Your task to perform on an android device: Open calendar and show me the fourth week of next month Image 0: 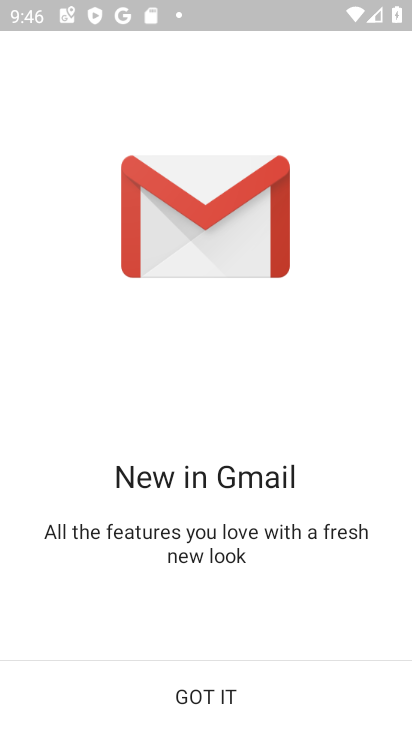
Step 0: press home button
Your task to perform on an android device: Open calendar and show me the fourth week of next month Image 1: 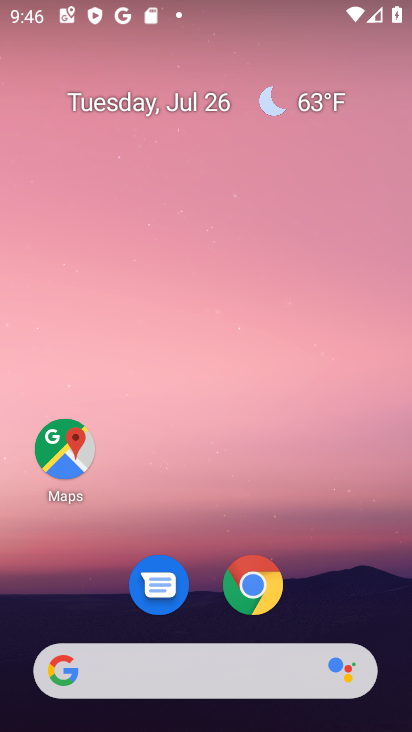
Step 1: drag from (337, 600) to (289, 91)
Your task to perform on an android device: Open calendar and show me the fourth week of next month Image 2: 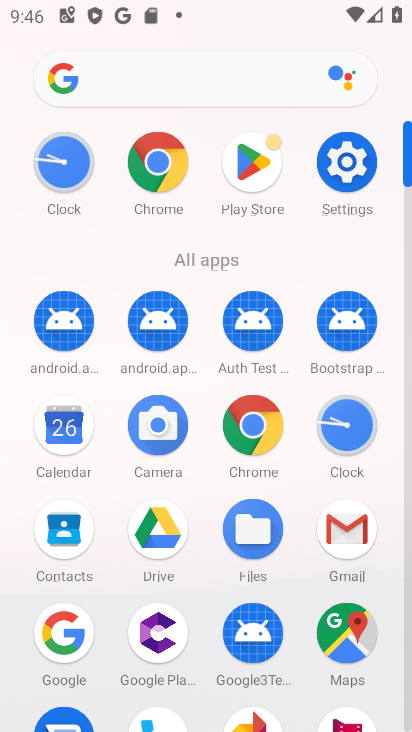
Step 2: click (61, 527)
Your task to perform on an android device: Open calendar and show me the fourth week of next month Image 3: 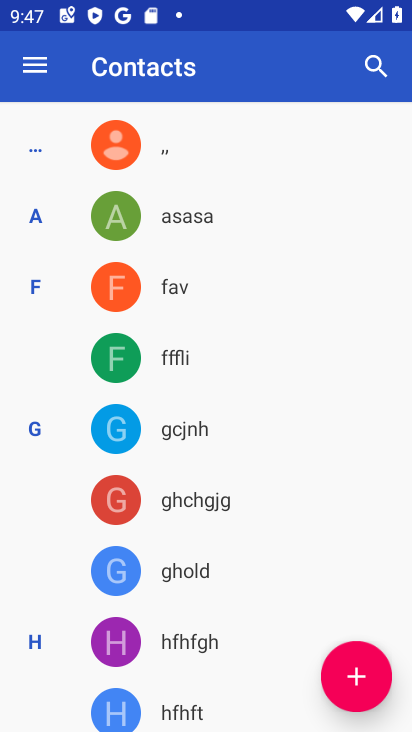
Step 3: press back button
Your task to perform on an android device: Open calendar and show me the fourth week of next month Image 4: 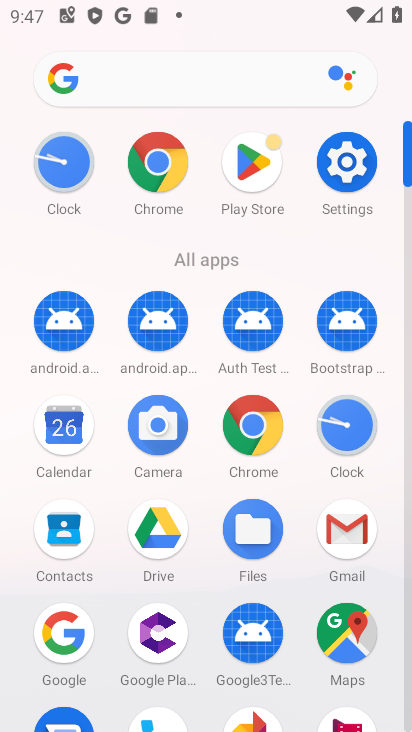
Step 4: click (63, 437)
Your task to perform on an android device: Open calendar and show me the fourth week of next month Image 5: 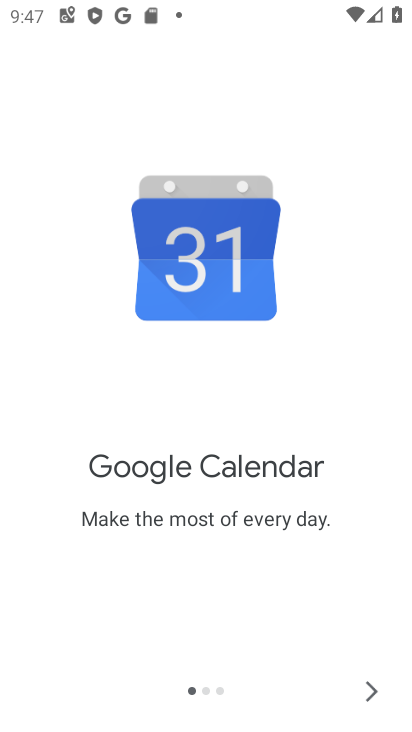
Step 5: click (374, 683)
Your task to perform on an android device: Open calendar and show me the fourth week of next month Image 6: 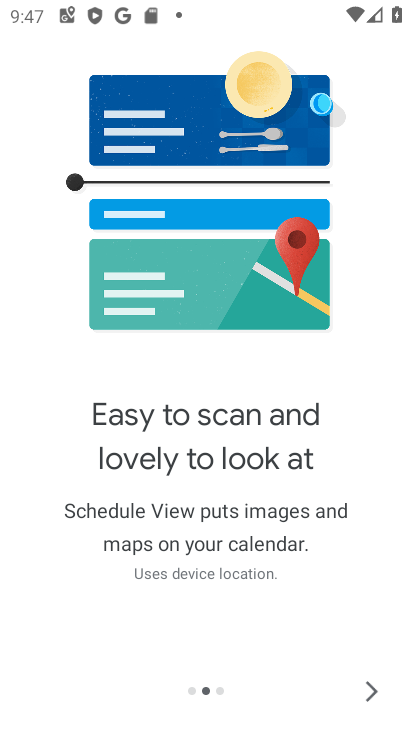
Step 6: click (374, 683)
Your task to perform on an android device: Open calendar and show me the fourth week of next month Image 7: 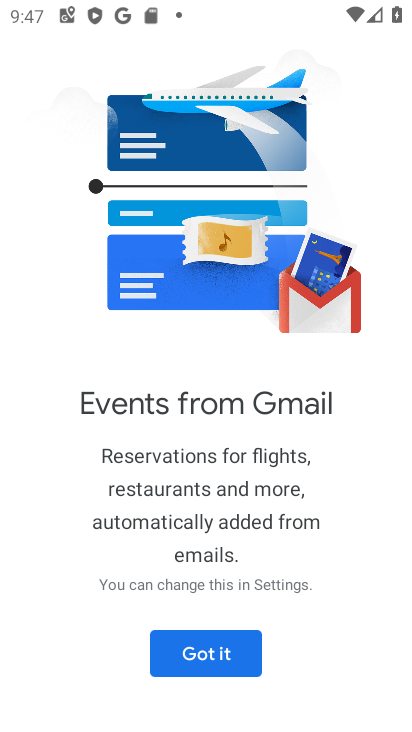
Step 7: click (244, 654)
Your task to perform on an android device: Open calendar and show me the fourth week of next month Image 8: 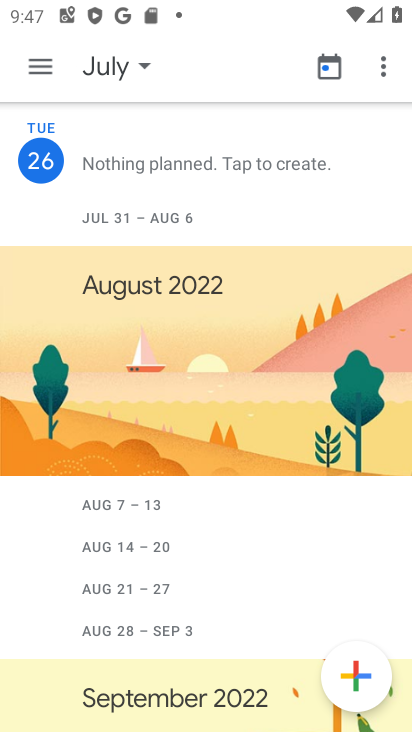
Step 8: click (43, 72)
Your task to perform on an android device: Open calendar and show me the fourth week of next month Image 9: 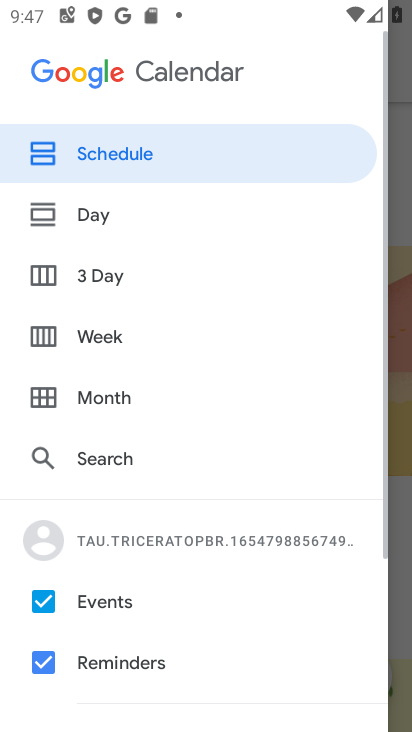
Step 9: click (44, 407)
Your task to perform on an android device: Open calendar and show me the fourth week of next month Image 10: 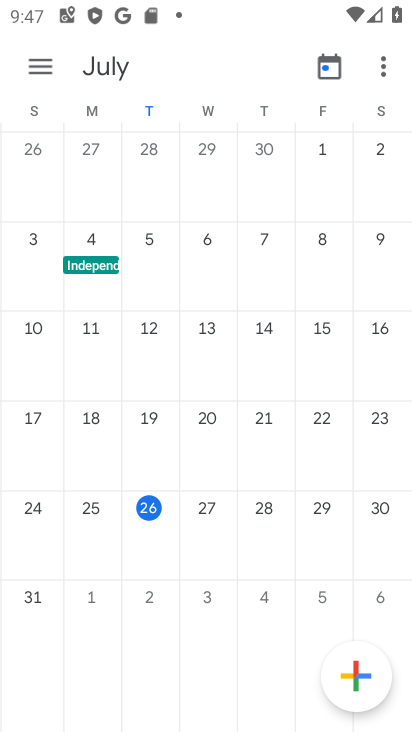
Step 10: click (33, 511)
Your task to perform on an android device: Open calendar and show me the fourth week of next month Image 11: 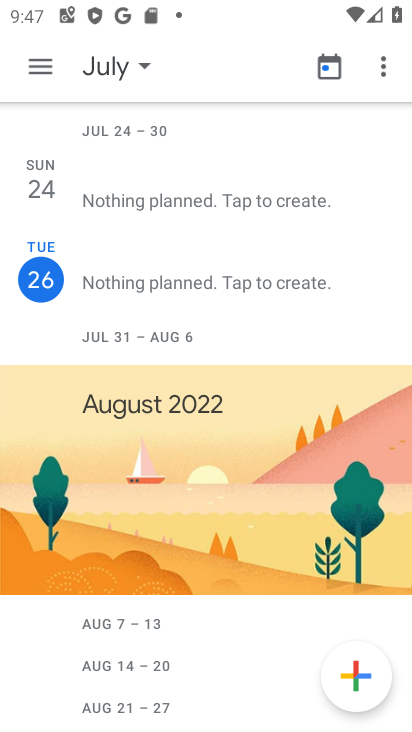
Step 11: click (44, 65)
Your task to perform on an android device: Open calendar and show me the fourth week of next month Image 12: 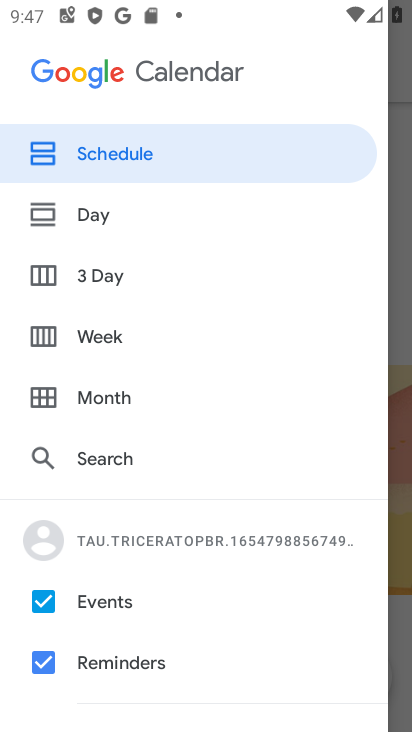
Step 12: click (89, 332)
Your task to perform on an android device: Open calendar and show me the fourth week of next month Image 13: 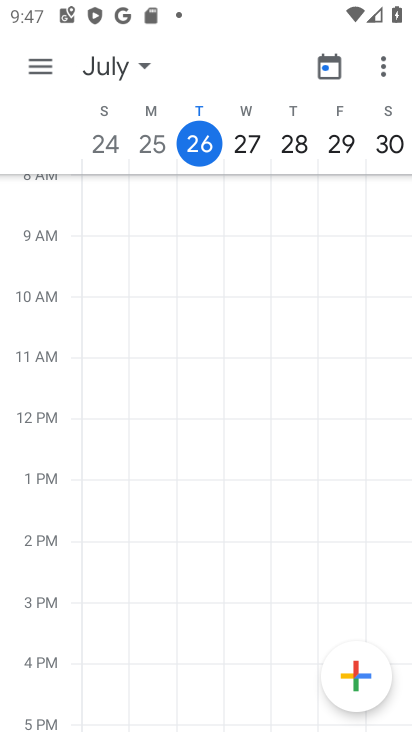
Step 13: task complete